Your task to perform on an android device: change notification settings in the gmail app Image 0: 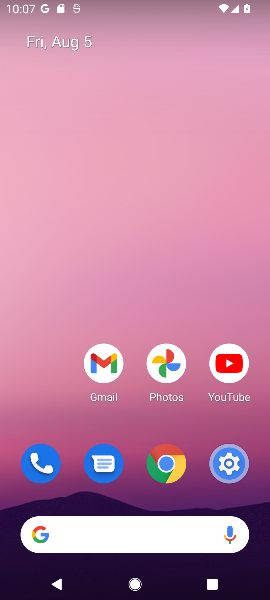
Step 0: drag from (180, 551) to (81, 182)
Your task to perform on an android device: change notification settings in the gmail app Image 1: 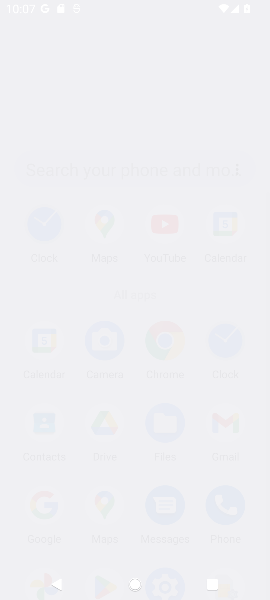
Step 1: drag from (95, 361) to (86, 28)
Your task to perform on an android device: change notification settings in the gmail app Image 2: 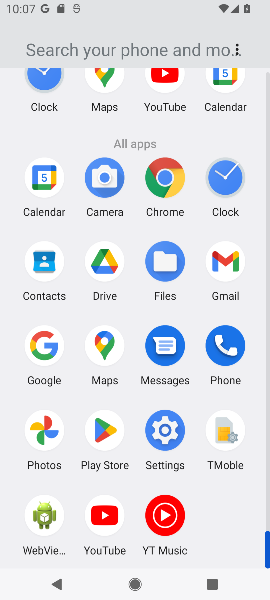
Step 2: drag from (121, 301) to (127, 147)
Your task to perform on an android device: change notification settings in the gmail app Image 3: 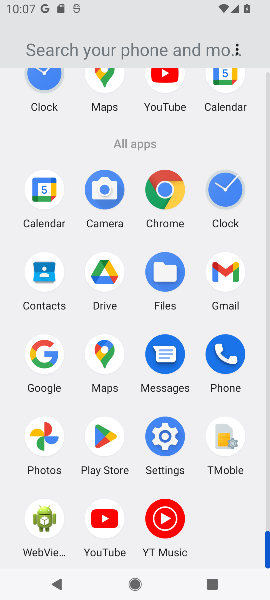
Step 3: click (220, 269)
Your task to perform on an android device: change notification settings in the gmail app Image 4: 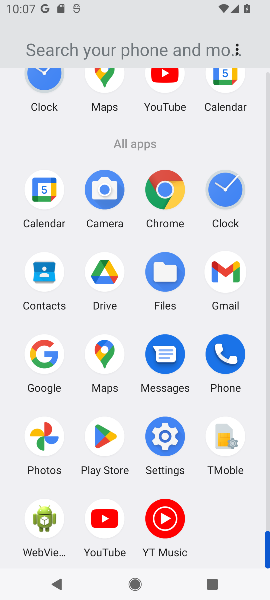
Step 4: click (220, 269)
Your task to perform on an android device: change notification settings in the gmail app Image 5: 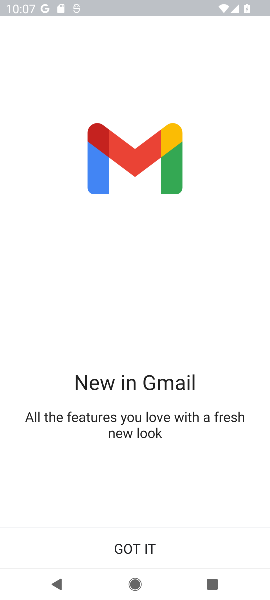
Step 5: click (220, 269)
Your task to perform on an android device: change notification settings in the gmail app Image 6: 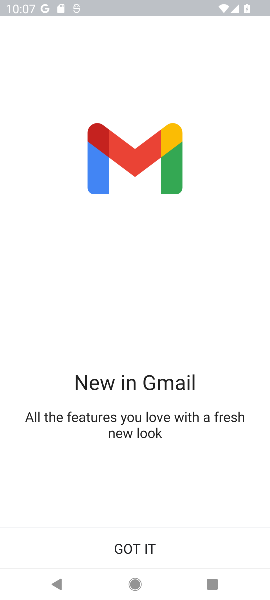
Step 6: press back button
Your task to perform on an android device: change notification settings in the gmail app Image 7: 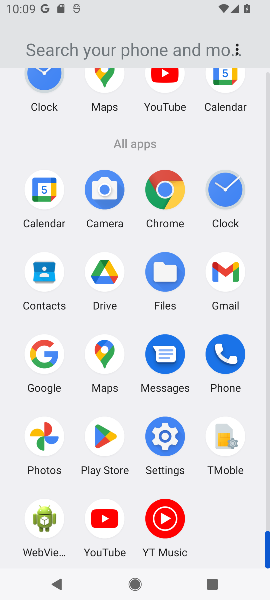
Step 7: click (227, 279)
Your task to perform on an android device: change notification settings in the gmail app Image 8: 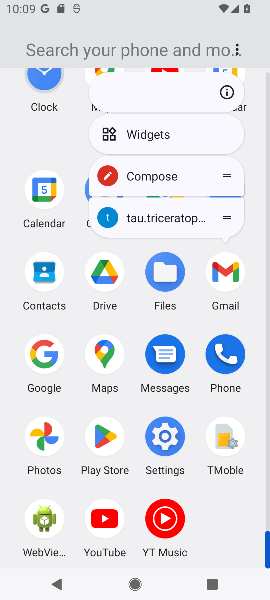
Step 8: click (221, 272)
Your task to perform on an android device: change notification settings in the gmail app Image 9: 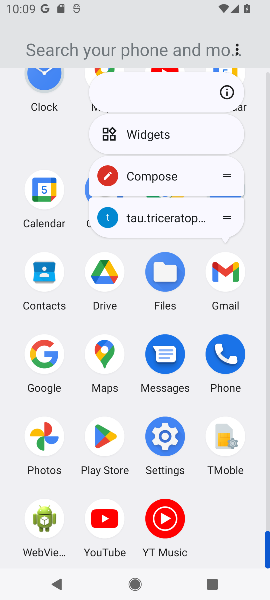
Step 9: click (225, 280)
Your task to perform on an android device: change notification settings in the gmail app Image 10: 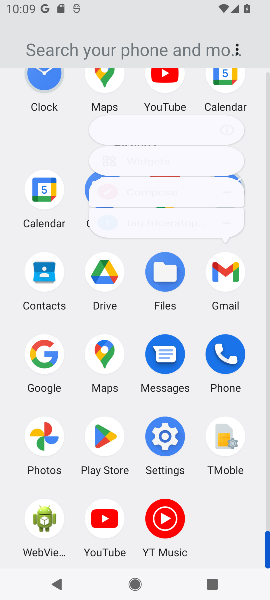
Step 10: click (227, 283)
Your task to perform on an android device: change notification settings in the gmail app Image 11: 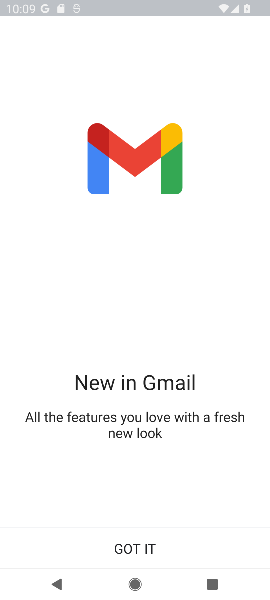
Step 11: click (227, 283)
Your task to perform on an android device: change notification settings in the gmail app Image 12: 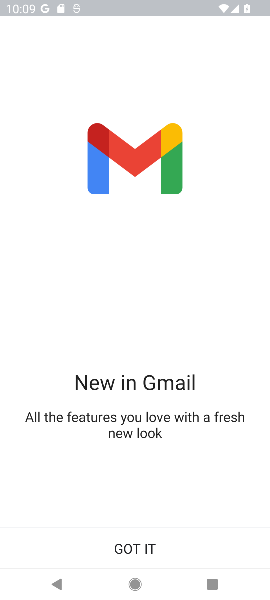
Step 12: click (120, 539)
Your task to perform on an android device: change notification settings in the gmail app Image 13: 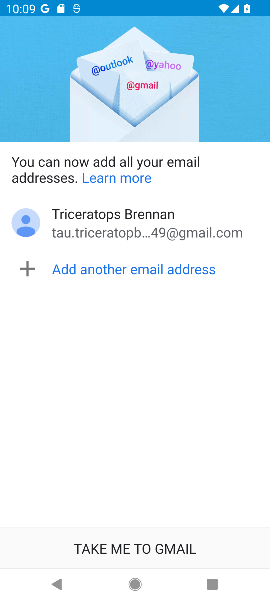
Step 13: click (141, 540)
Your task to perform on an android device: change notification settings in the gmail app Image 14: 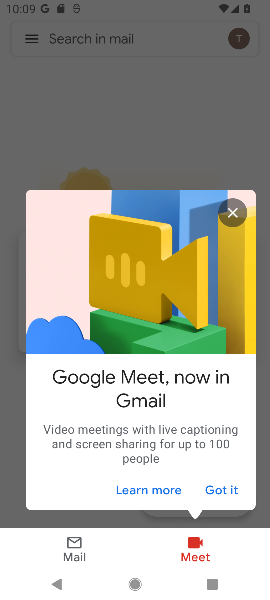
Step 14: click (224, 211)
Your task to perform on an android device: change notification settings in the gmail app Image 15: 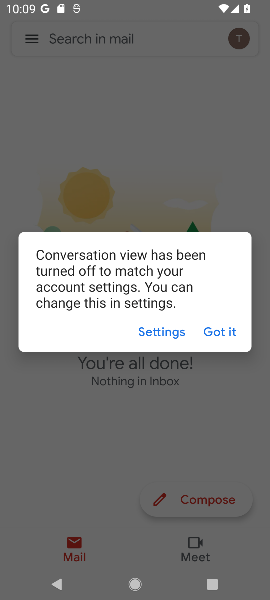
Step 15: click (214, 330)
Your task to perform on an android device: change notification settings in the gmail app Image 16: 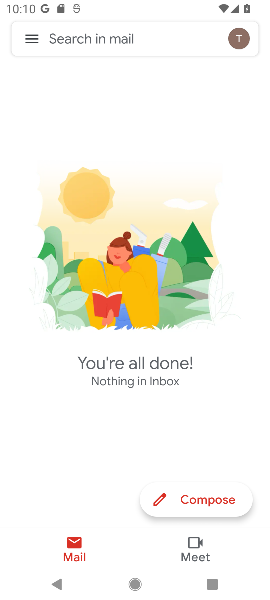
Step 16: drag from (131, 411) to (95, 158)
Your task to perform on an android device: change notification settings in the gmail app Image 17: 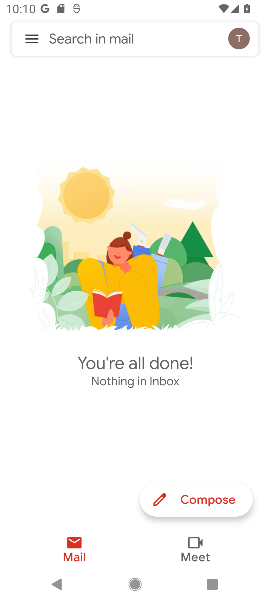
Step 17: click (23, 35)
Your task to perform on an android device: change notification settings in the gmail app Image 18: 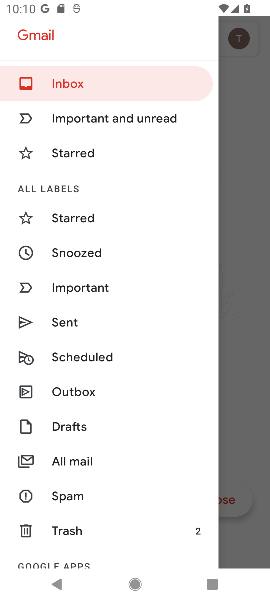
Step 18: click (239, 365)
Your task to perform on an android device: change notification settings in the gmail app Image 19: 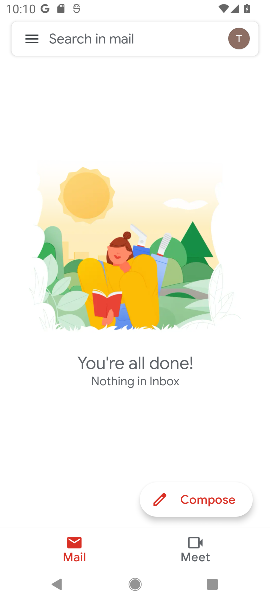
Step 19: click (26, 34)
Your task to perform on an android device: change notification settings in the gmail app Image 20: 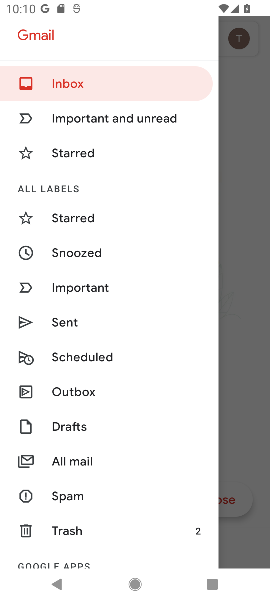
Step 20: drag from (104, 462) to (84, 187)
Your task to perform on an android device: change notification settings in the gmail app Image 21: 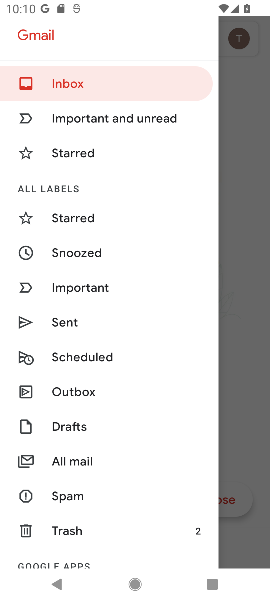
Step 21: drag from (103, 373) to (104, 175)
Your task to perform on an android device: change notification settings in the gmail app Image 22: 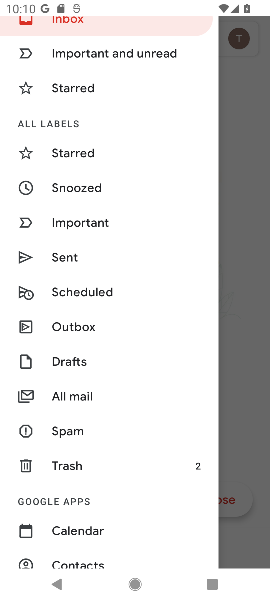
Step 22: drag from (118, 366) to (112, 177)
Your task to perform on an android device: change notification settings in the gmail app Image 23: 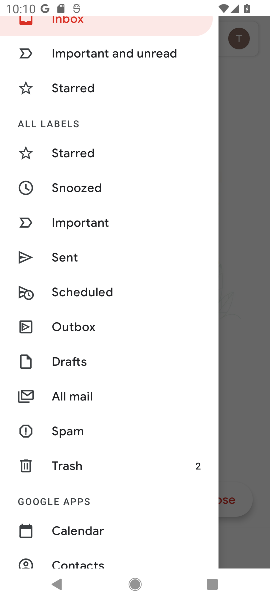
Step 23: drag from (80, 441) to (72, 305)
Your task to perform on an android device: change notification settings in the gmail app Image 24: 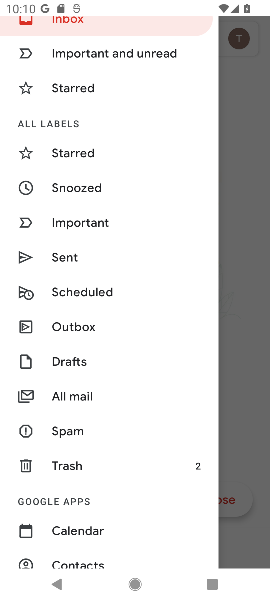
Step 24: drag from (113, 466) to (96, 249)
Your task to perform on an android device: change notification settings in the gmail app Image 25: 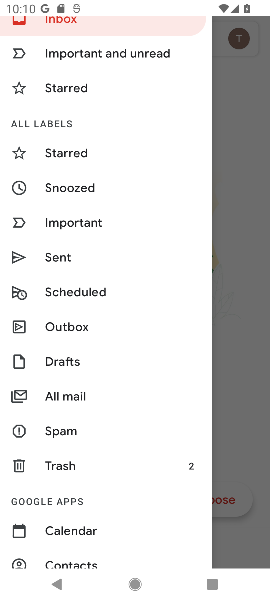
Step 25: drag from (106, 394) to (83, 223)
Your task to perform on an android device: change notification settings in the gmail app Image 26: 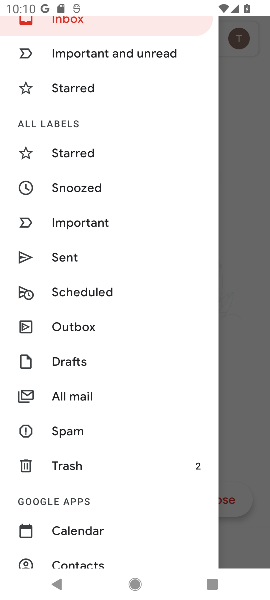
Step 26: drag from (94, 401) to (73, 207)
Your task to perform on an android device: change notification settings in the gmail app Image 27: 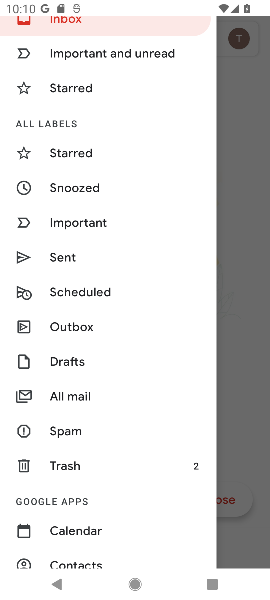
Step 27: drag from (35, 209) to (30, 164)
Your task to perform on an android device: change notification settings in the gmail app Image 28: 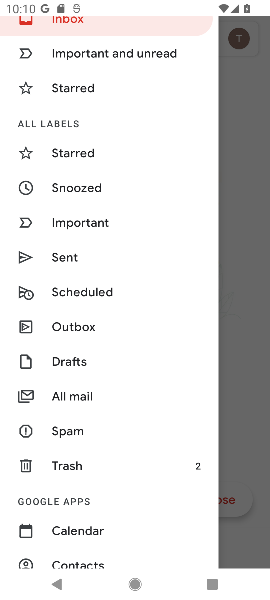
Step 28: drag from (70, 425) to (76, 223)
Your task to perform on an android device: change notification settings in the gmail app Image 29: 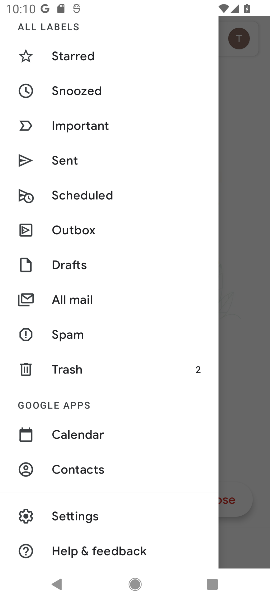
Step 29: drag from (76, 532) to (37, 221)
Your task to perform on an android device: change notification settings in the gmail app Image 30: 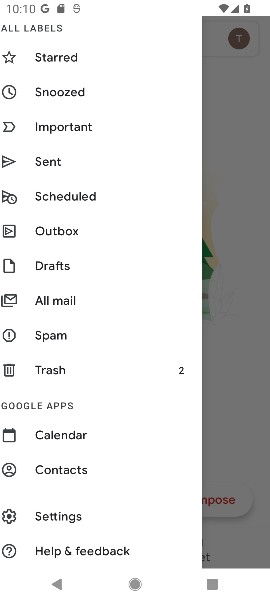
Step 30: drag from (90, 460) to (90, 329)
Your task to perform on an android device: change notification settings in the gmail app Image 31: 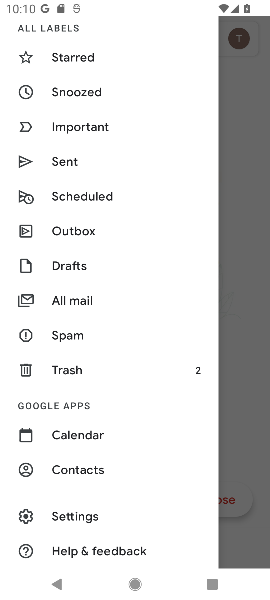
Step 31: click (68, 520)
Your task to perform on an android device: change notification settings in the gmail app Image 32: 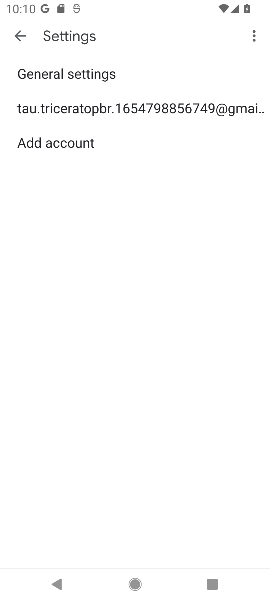
Step 32: click (69, 111)
Your task to perform on an android device: change notification settings in the gmail app Image 33: 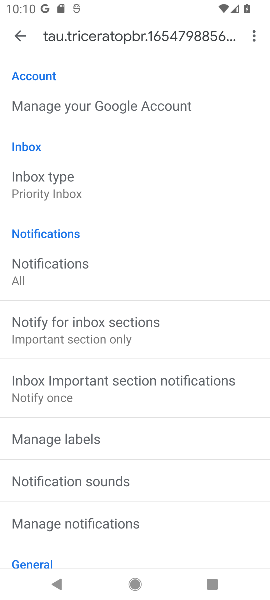
Step 33: click (37, 274)
Your task to perform on an android device: change notification settings in the gmail app Image 34: 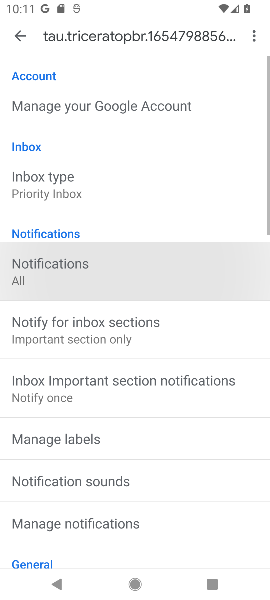
Step 34: click (50, 270)
Your task to perform on an android device: change notification settings in the gmail app Image 35: 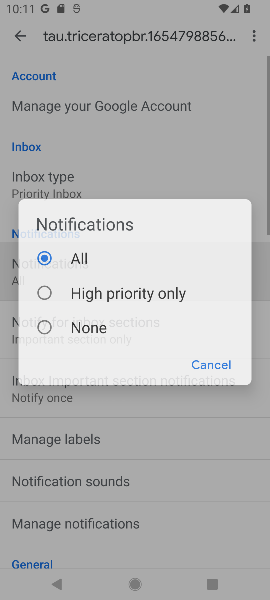
Step 35: click (50, 270)
Your task to perform on an android device: change notification settings in the gmail app Image 36: 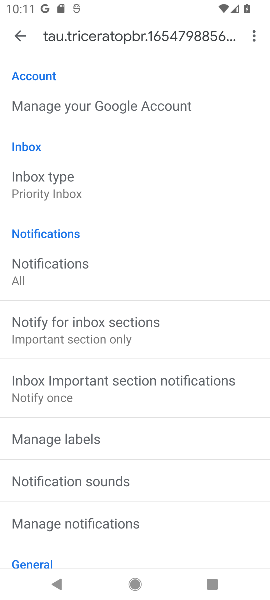
Step 36: task complete